Your task to perform on an android device: Open location settings Image 0: 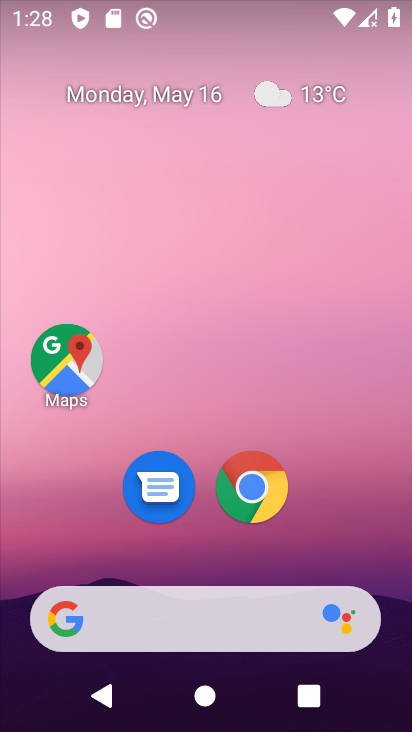
Step 0: drag from (396, 559) to (305, 41)
Your task to perform on an android device: Open location settings Image 1: 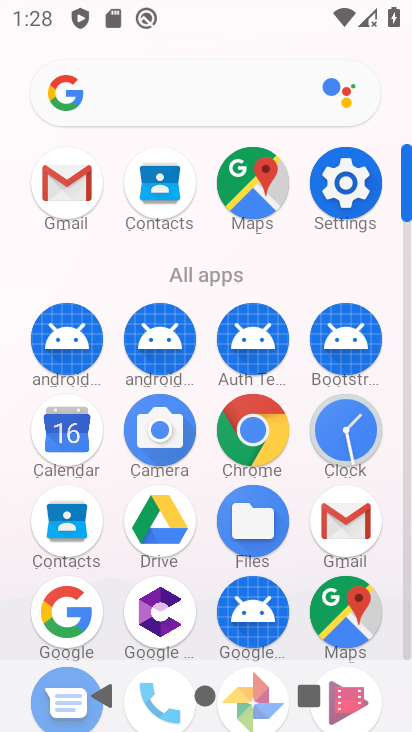
Step 1: click (342, 179)
Your task to perform on an android device: Open location settings Image 2: 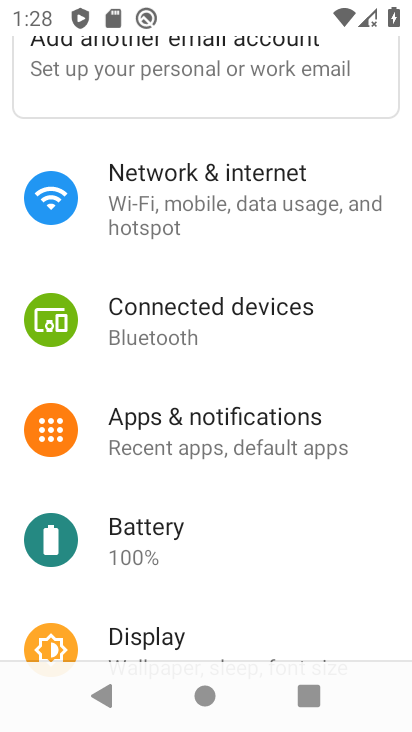
Step 2: drag from (250, 579) to (299, 252)
Your task to perform on an android device: Open location settings Image 3: 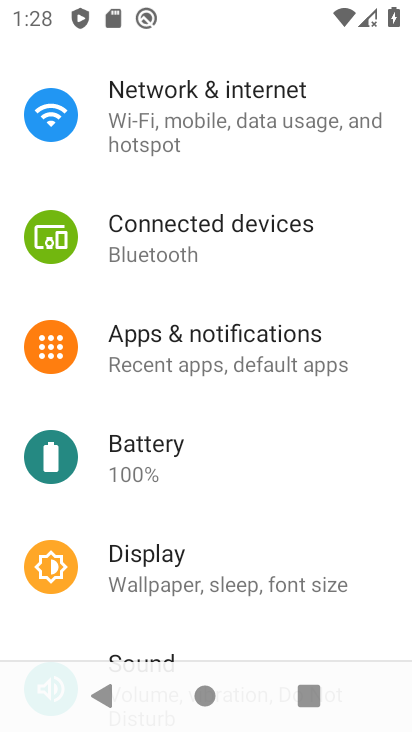
Step 3: drag from (267, 603) to (282, 337)
Your task to perform on an android device: Open location settings Image 4: 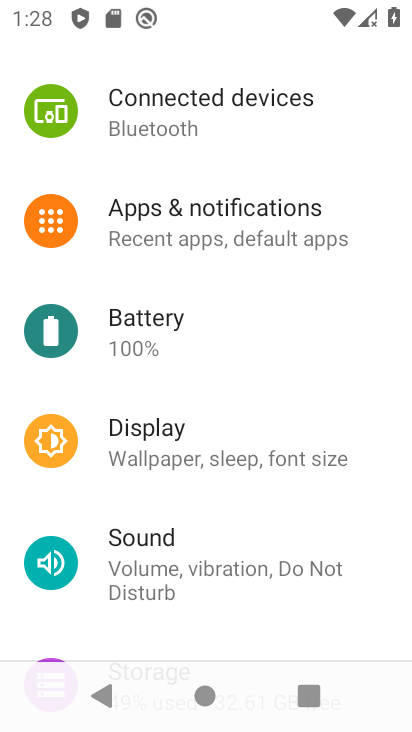
Step 4: drag from (180, 549) to (197, 334)
Your task to perform on an android device: Open location settings Image 5: 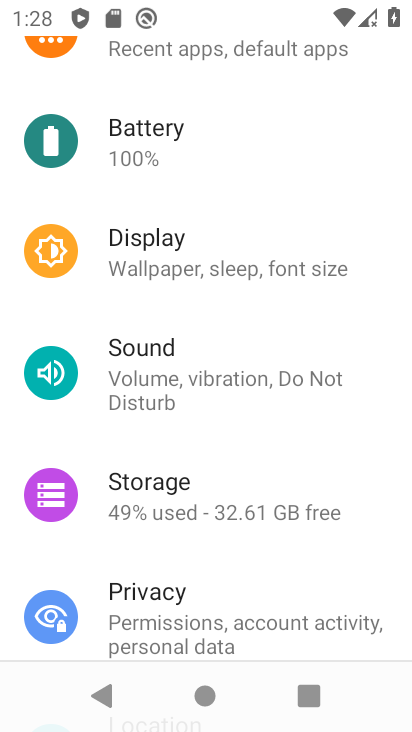
Step 5: drag from (271, 608) to (290, 361)
Your task to perform on an android device: Open location settings Image 6: 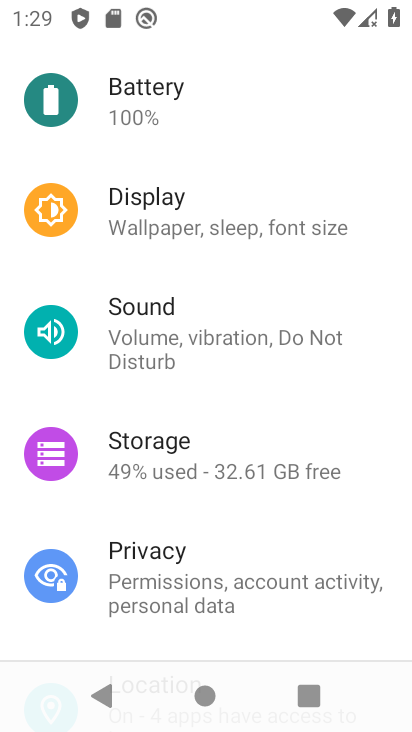
Step 6: drag from (219, 575) to (230, 411)
Your task to perform on an android device: Open location settings Image 7: 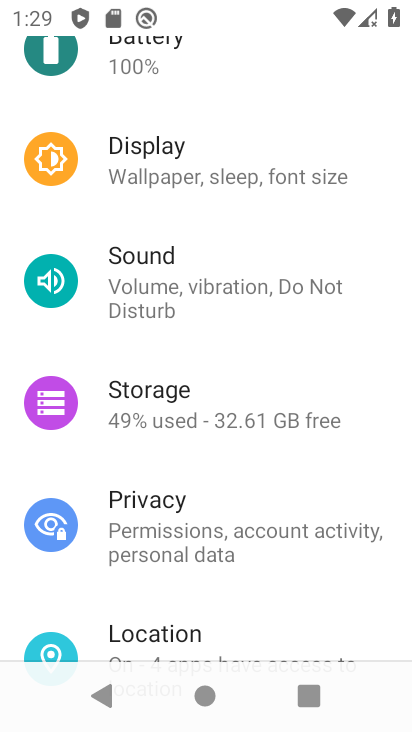
Step 7: click (161, 624)
Your task to perform on an android device: Open location settings Image 8: 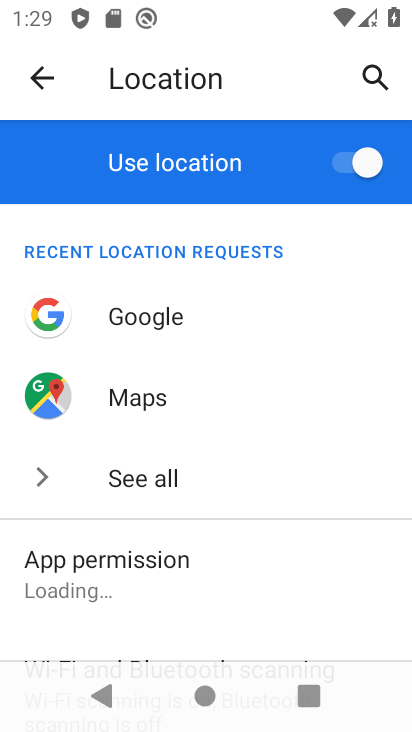
Step 8: drag from (278, 600) to (291, 468)
Your task to perform on an android device: Open location settings Image 9: 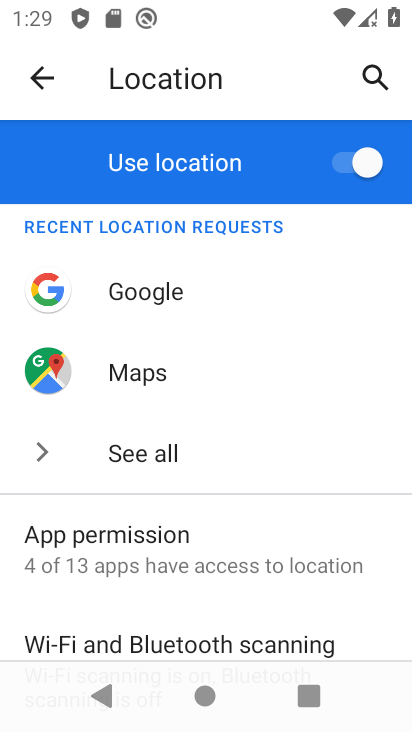
Step 9: drag from (236, 352) to (259, 528)
Your task to perform on an android device: Open location settings Image 10: 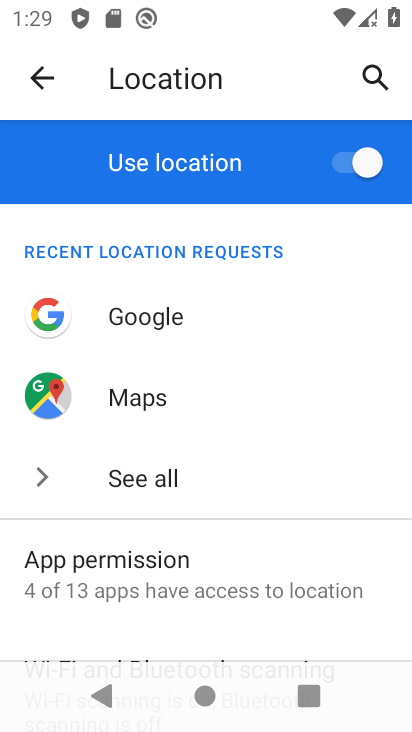
Step 10: drag from (228, 577) to (226, 268)
Your task to perform on an android device: Open location settings Image 11: 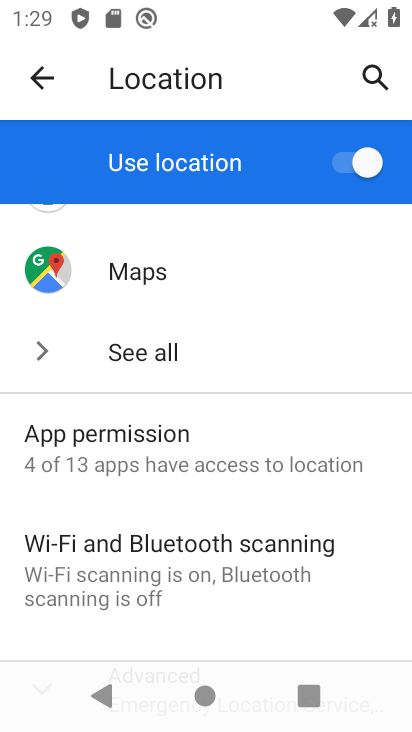
Step 11: drag from (247, 575) to (247, 407)
Your task to perform on an android device: Open location settings Image 12: 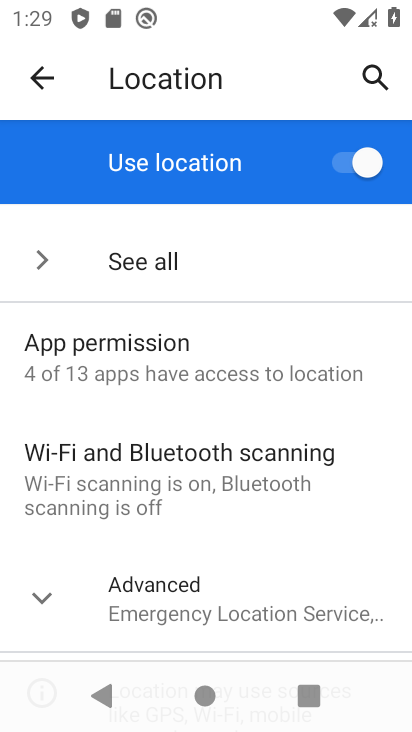
Step 12: click (31, 595)
Your task to perform on an android device: Open location settings Image 13: 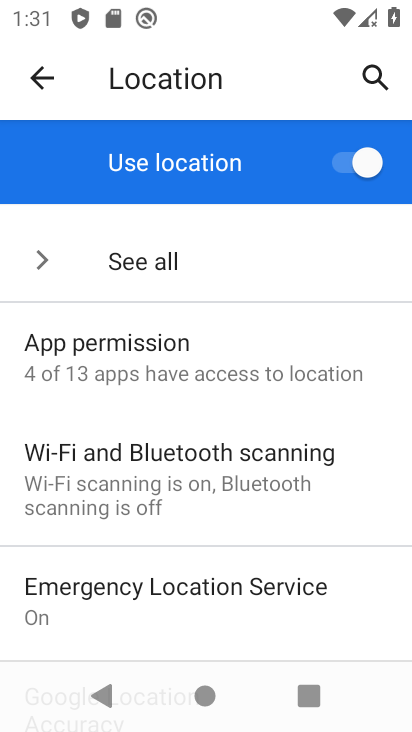
Step 13: task complete